Your task to perform on an android device: open the mobile data screen to see how much data has been used Image 0: 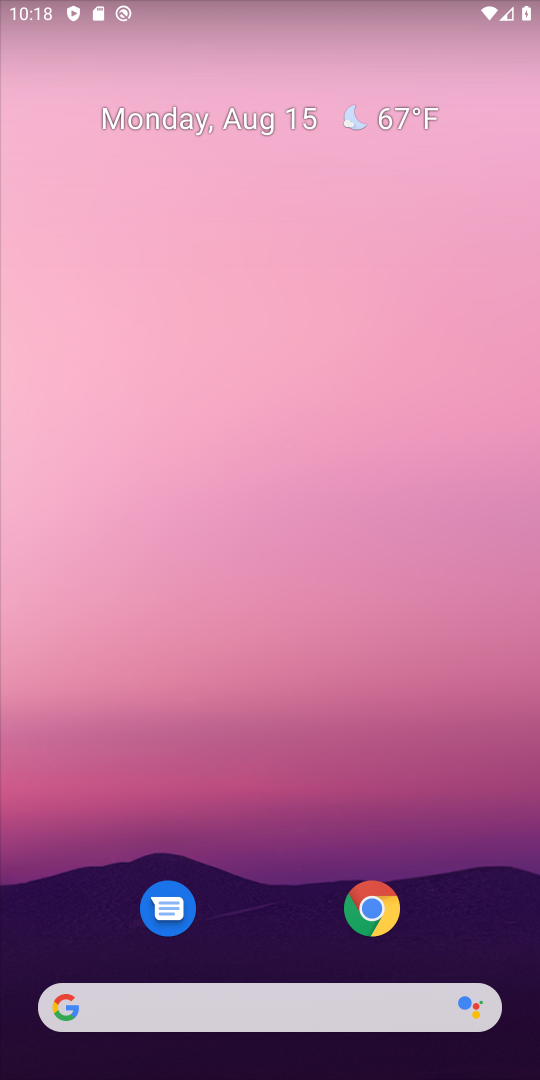
Step 0: drag from (234, 13) to (286, 926)
Your task to perform on an android device: open the mobile data screen to see how much data has been used Image 1: 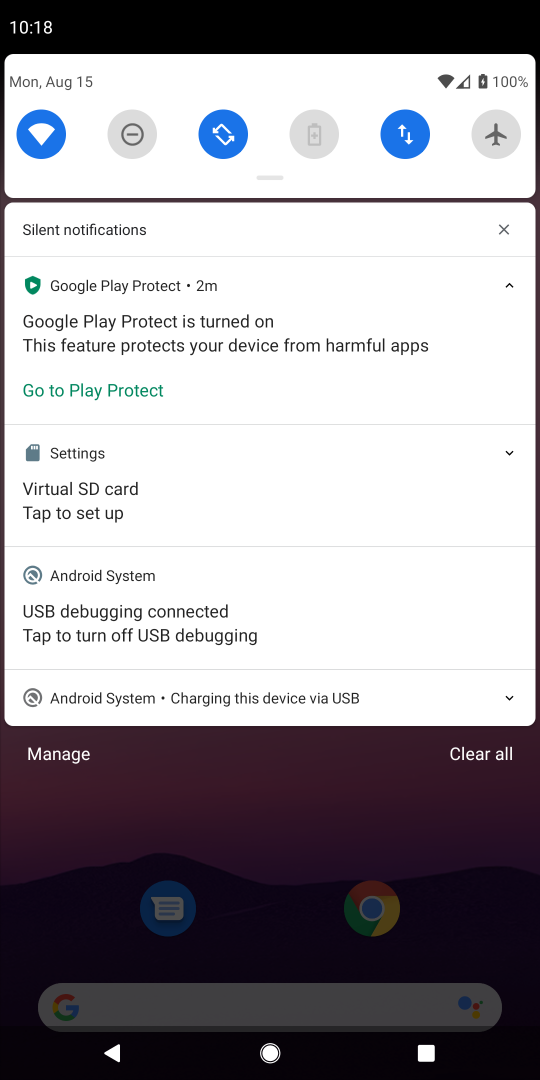
Step 1: click (397, 142)
Your task to perform on an android device: open the mobile data screen to see how much data has been used Image 2: 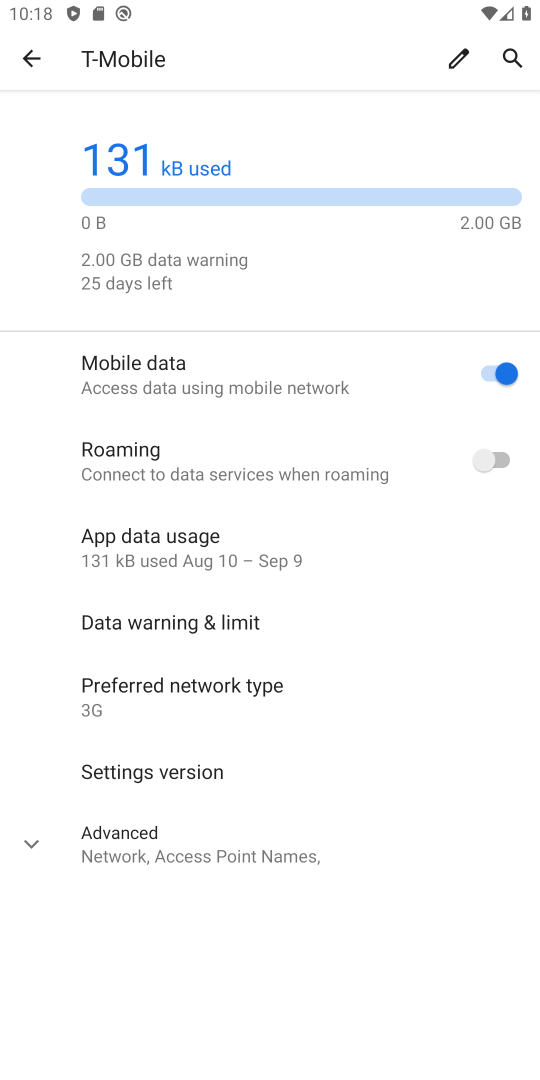
Step 2: task complete